Your task to perform on an android device: find photos in the google photos app Image 0: 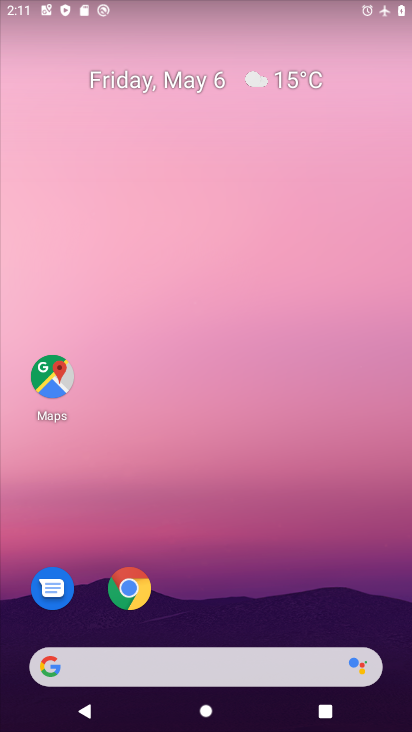
Step 0: drag from (215, 626) to (267, 244)
Your task to perform on an android device: find photos in the google photos app Image 1: 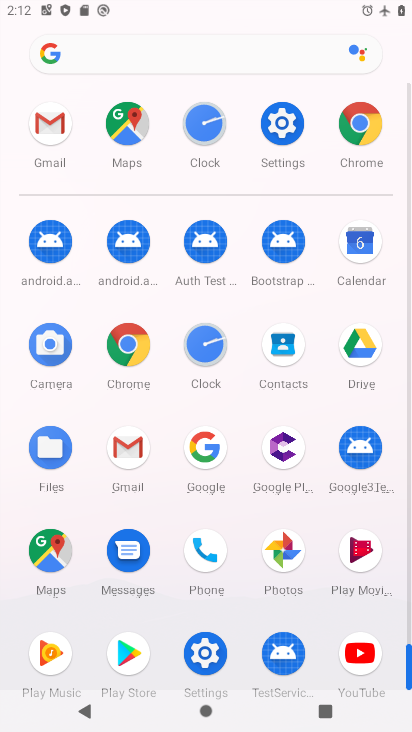
Step 1: click (280, 551)
Your task to perform on an android device: find photos in the google photos app Image 2: 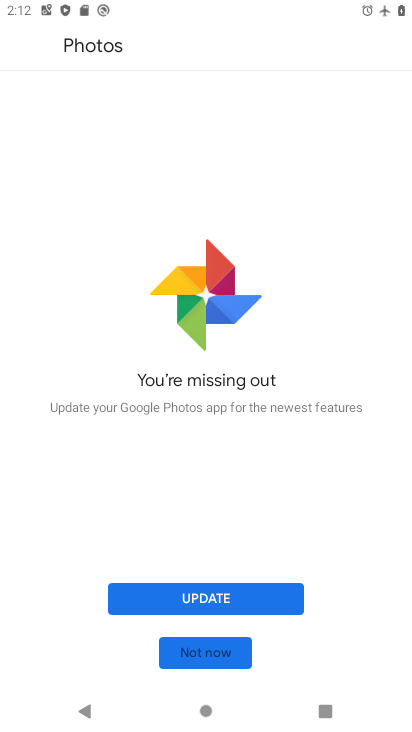
Step 2: click (191, 659)
Your task to perform on an android device: find photos in the google photos app Image 3: 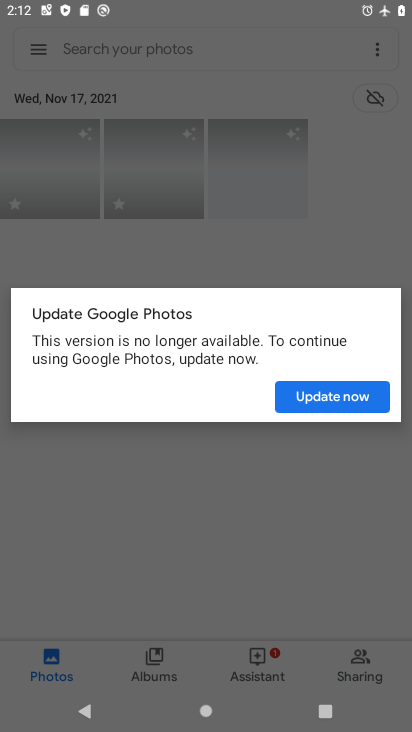
Step 3: click (177, 501)
Your task to perform on an android device: find photos in the google photos app Image 4: 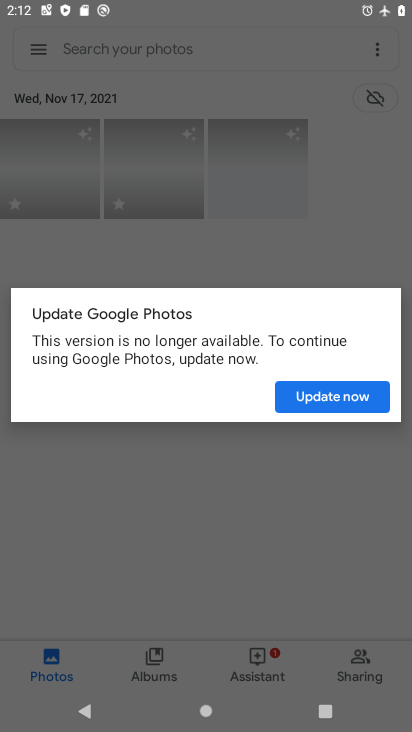
Step 4: click (346, 400)
Your task to perform on an android device: find photos in the google photos app Image 5: 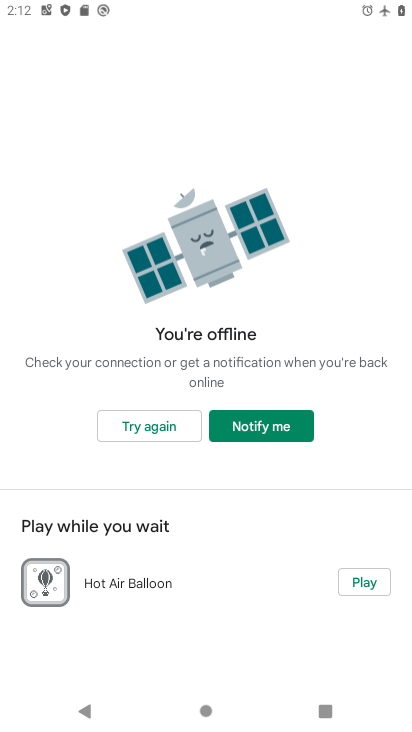
Step 5: click (171, 433)
Your task to perform on an android device: find photos in the google photos app Image 6: 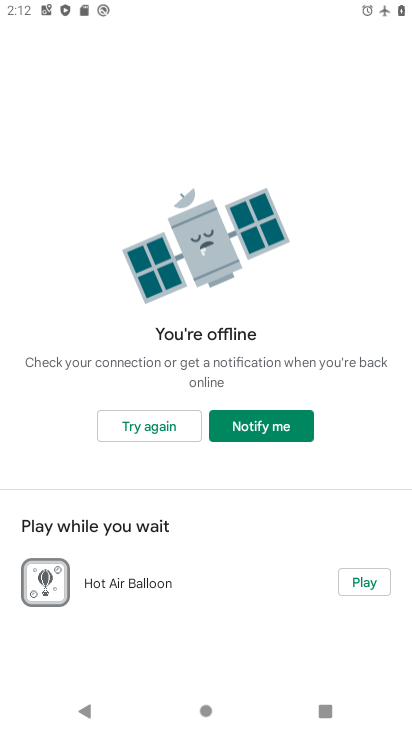
Step 6: click (251, 432)
Your task to perform on an android device: find photos in the google photos app Image 7: 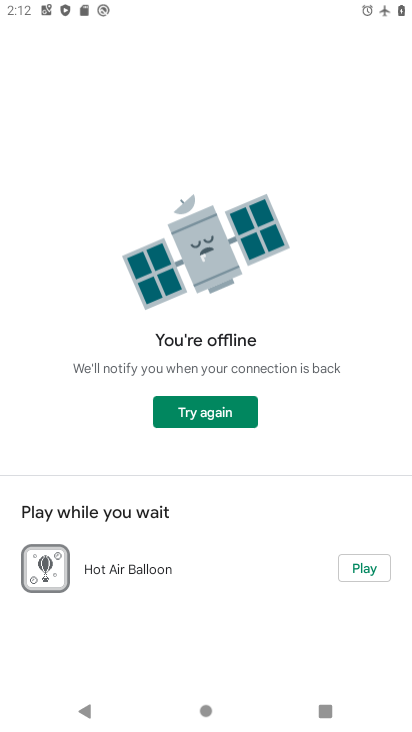
Step 7: click (179, 419)
Your task to perform on an android device: find photos in the google photos app Image 8: 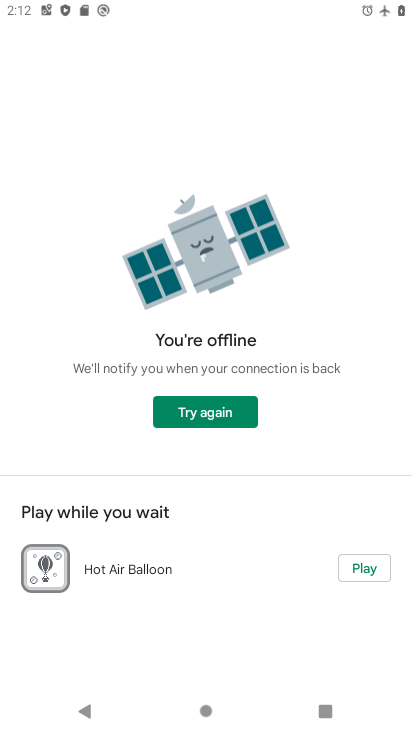
Step 8: task complete